Your task to perform on an android device: clear all cookies in the chrome app Image 0: 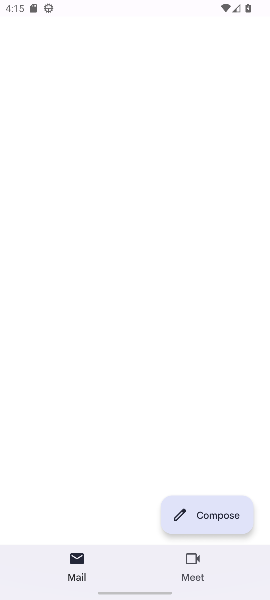
Step 0: click (19, 87)
Your task to perform on an android device: clear all cookies in the chrome app Image 1: 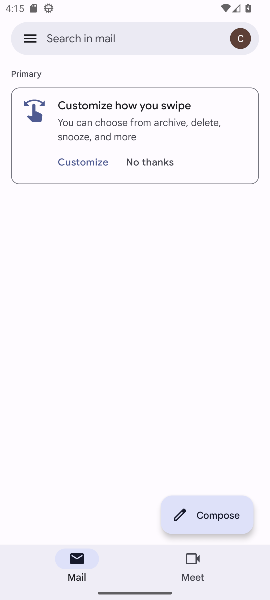
Step 1: press back button
Your task to perform on an android device: clear all cookies in the chrome app Image 2: 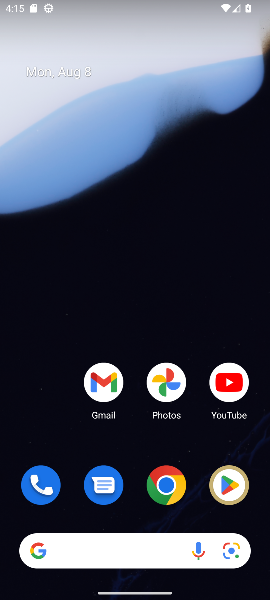
Step 2: drag from (163, 551) to (144, 177)
Your task to perform on an android device: clear all cookies in the chrome app Image 3: 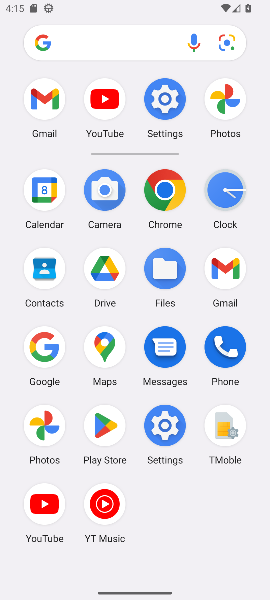
Step 3: click (166, 191)
Your task to perform on an android device: clear all cookies in the chrome app Image 4: 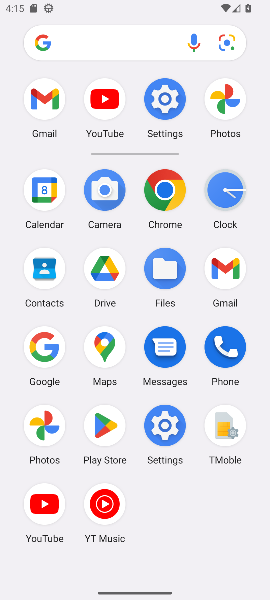
Step 4: click (166, 191)
Your task to perform on an android device: clear all cookies in the chrome app Image 5: 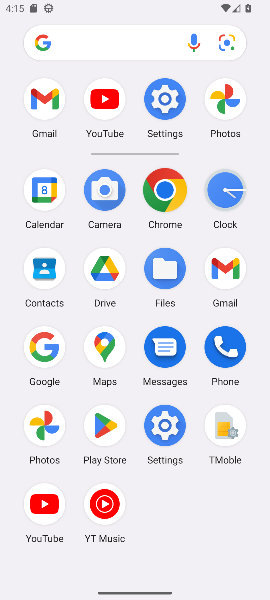
Step 5: click (166, 191)
Your task to perform on an android device: clear all cookies in the chrome app Image 6: 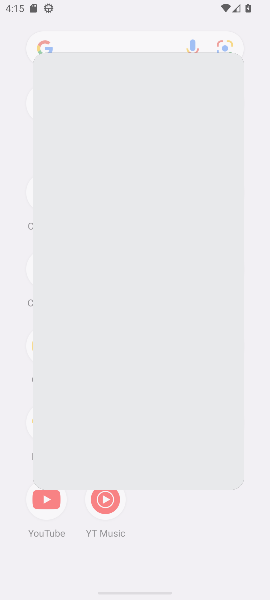
Step 6: click (166, 191)
Your task to perform on an android device: clear all cookies in the chrome app Image 7: 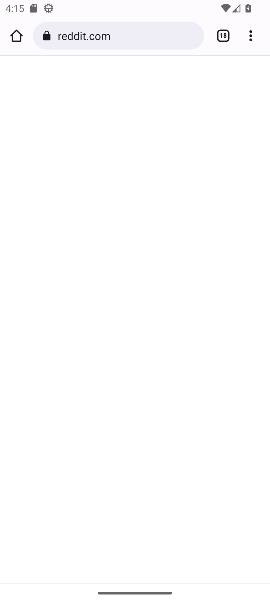
Step 7: click (254, 37)
Your task to perform on an android device: clear all cookies in the chrome app Image 8: 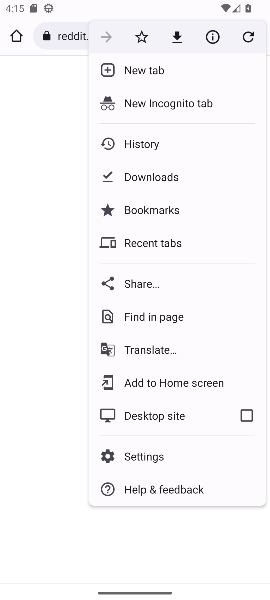
Step 8: click (145, 68)
Your task to perform on an android device: clear all cookies in the chrome app Image 9: 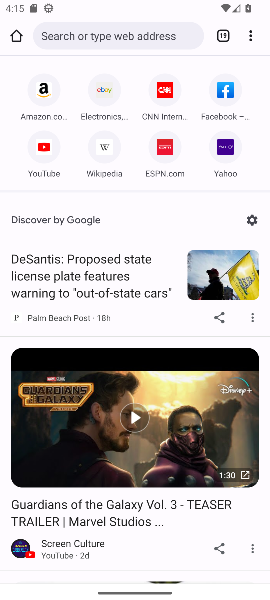
Step 9: drag from (245, 35) to (135, 324)
Your task to perform on an android device: clear all cookies in the chrome app Image 10: 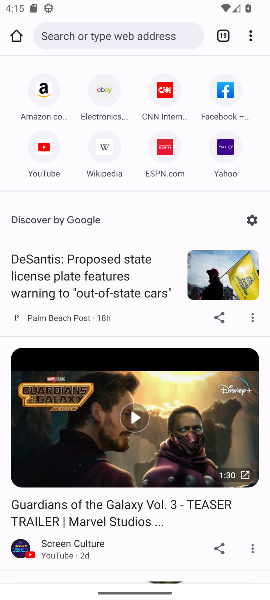
Step 10: click (138, 324)
Your task to perform on an android device: clear all cookies in the chrome app Image 11: 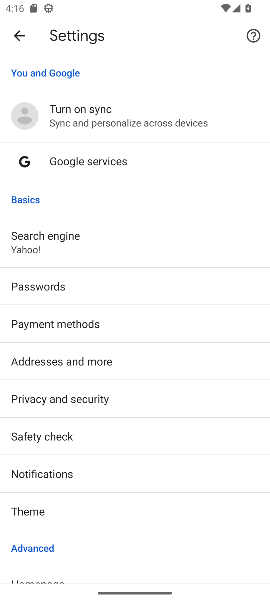
Step 11: drag from (92, 418) to (68, 58)
Your task to perform on an android device: clear all cookies in the chrome app Image 12: 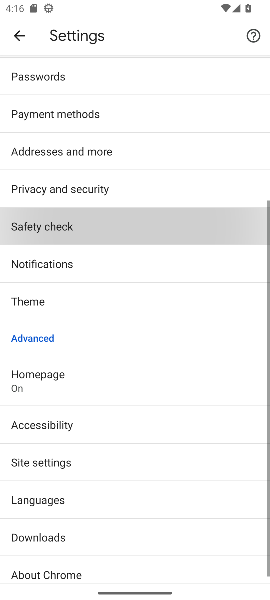
Step 12: click (82, 108)
Your task to perform on an android device: clear all cookies in the chrome app Image 13: 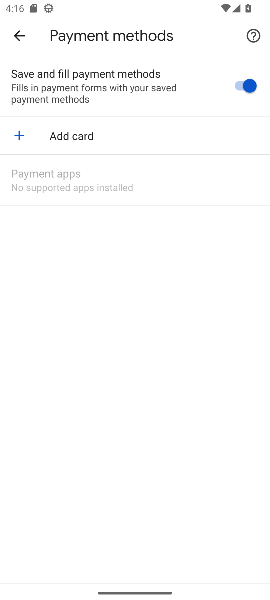
Step 13: click (16, 39)
Your task to perform on an android device: clear all cookies in the chrome app Image 14: 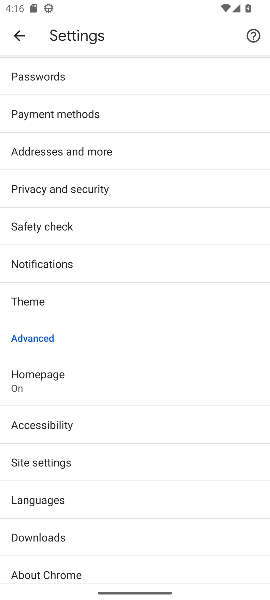
Step 14: click (39, 455)
Your task to perform on an android device: clear all cookies in the chrome app Image 15: 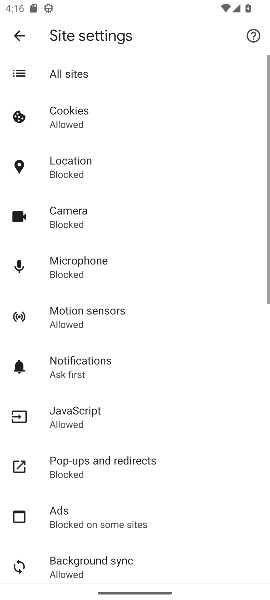
Step 15: click (82, 123)
Your task to perform on an android device: clear all cookies in the chrome app Image 16: 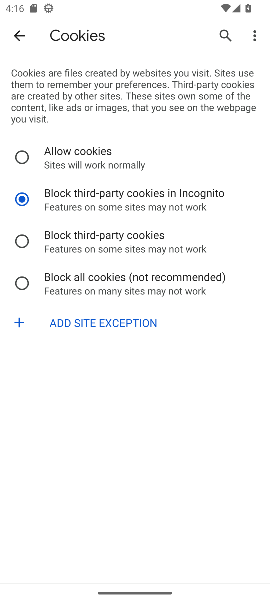
Step 16: click (12, 155)
Your task to perform on an android device: clear all cookies in the chrome app Image 17: 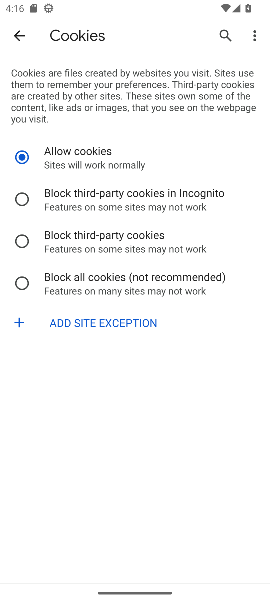
Step 17: task complete